Your task to perform on an android device: Check the weather Image 0: 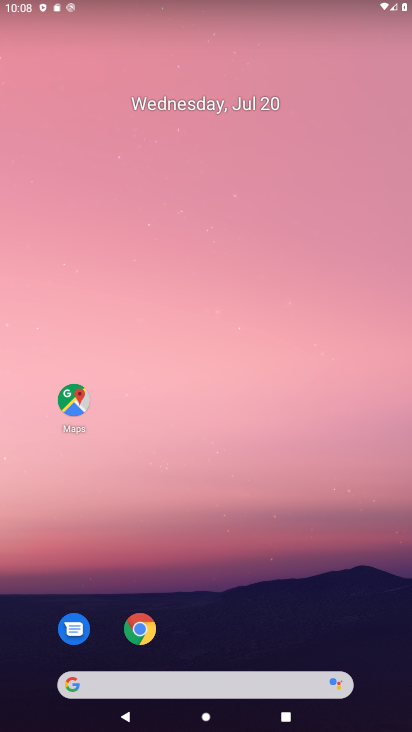
Step 0: drag from (186, 626) to (297, 91)
Your task to perform on an android device: Check the weather Image 1: 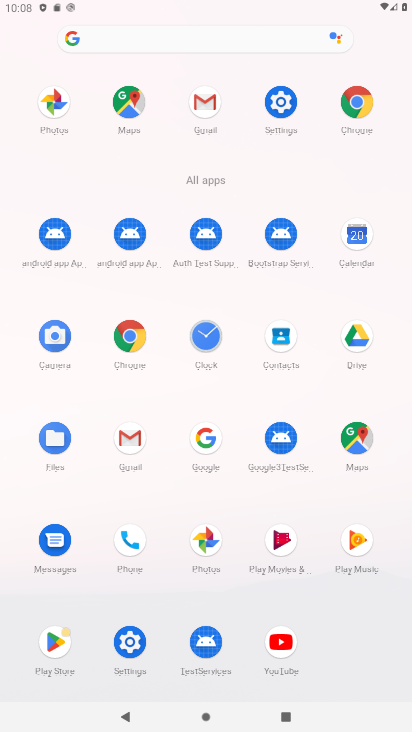
Step 1: click (288, 92)
Your task to perform on an android device: Check the weather Image 2: 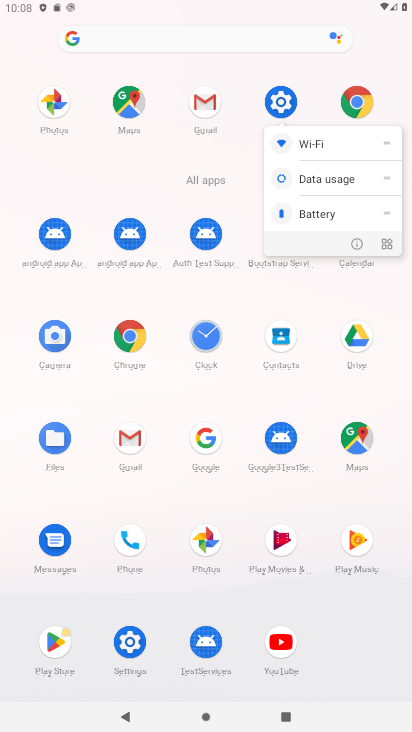
Step 2: click (362, 246)
Your task to perform on an android device: Check the weather Image 3: 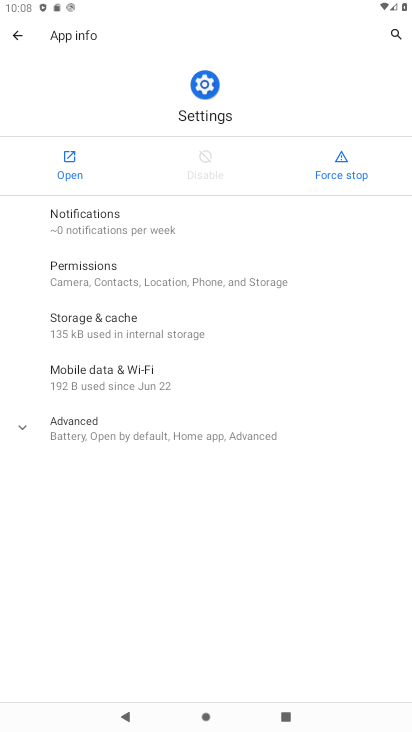
Step 3: click (76, 157)
Your task to perform on an android device: Check the weather Image 4: 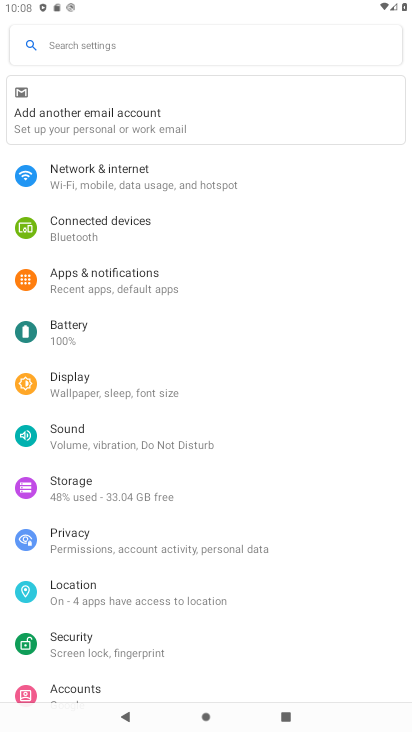
Step 4: press home button
Your task to perform on an android device: Check the weather Image 5: 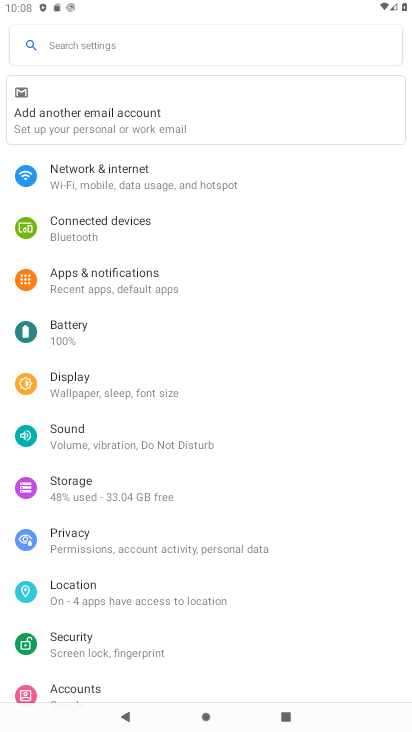
Step 5: press home button
Your task to perform on an android device: Check the weather Image 6: 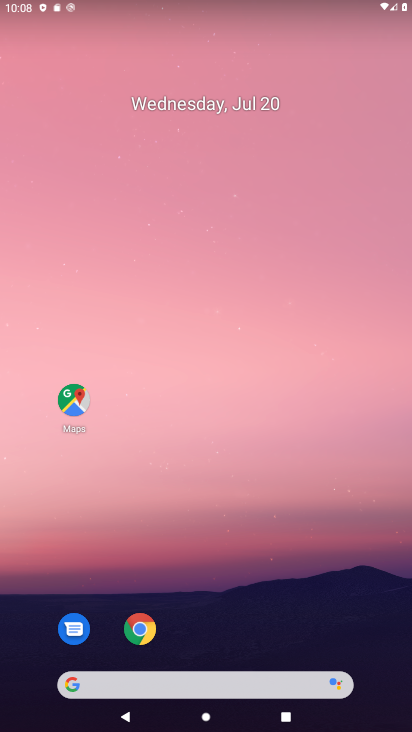
Step 6: drag from (188, 609) to (250, 86)
Your task to perform on an android device: Check the weather Image 7: 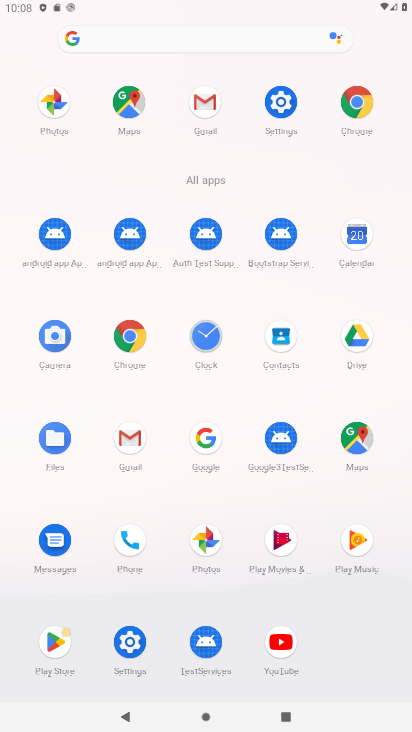
Step 7: click (164, 38)
Your task to perform on an android device: Check the weather Image 8: 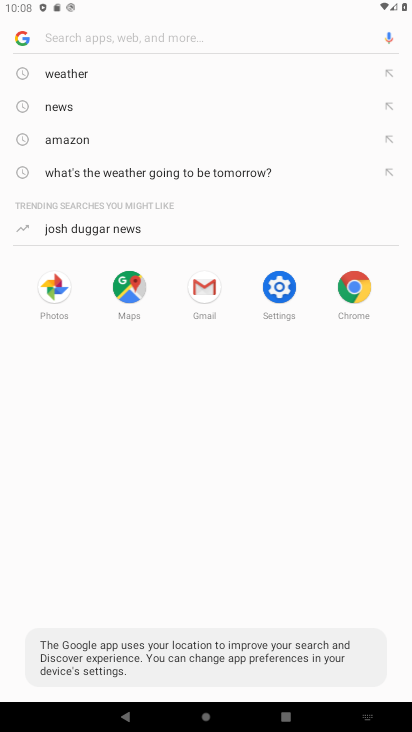
Step 8: click (92, 71)
Your task to perform on an android device: Check the weather Image 9: 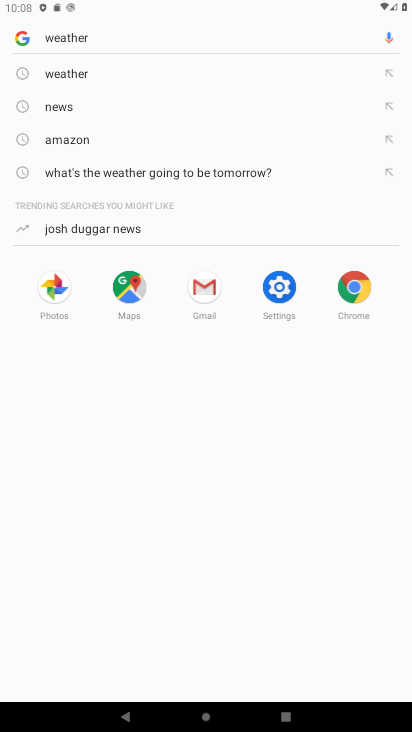
Step 9: task complete